Your task to perform on an android device: Open Android settings Image 0: 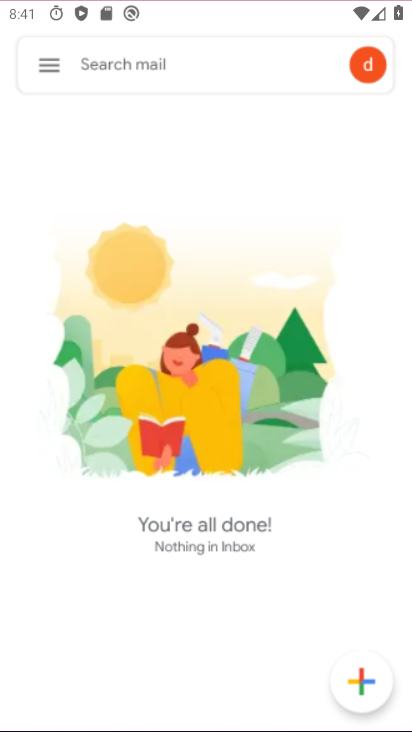
Step 0: drag from (281, 452) to (224, 55)
Your task to perform on an android device: Open Android settings Image 1: 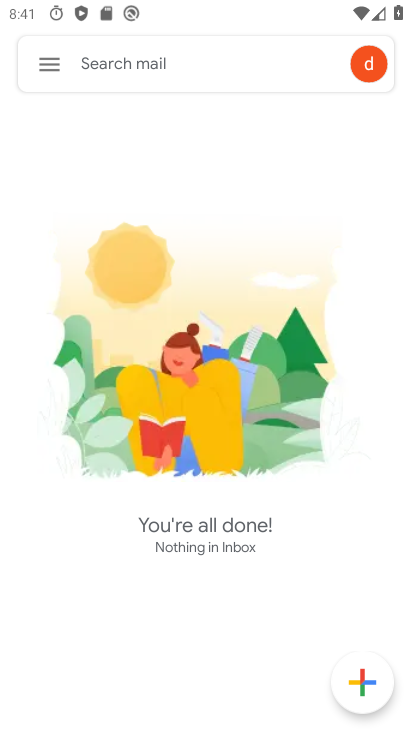
Step 1: press back button
Your task to perform on an android device: Open Android settings Image 2: 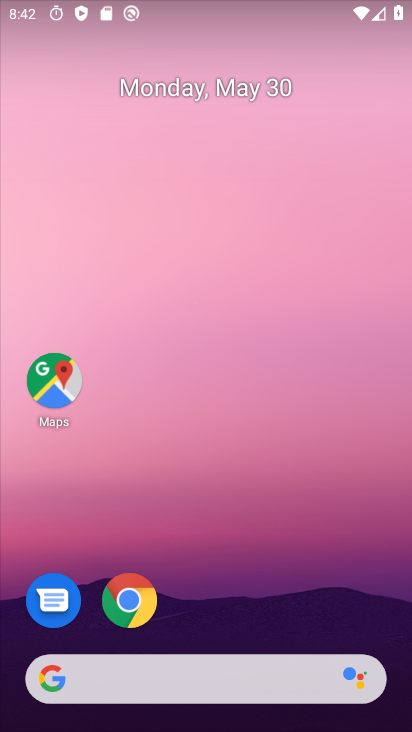
Step 2: drag from (294, 637) to (235, 88)
Your task to perform on an android device: Open Android settings Image 3: 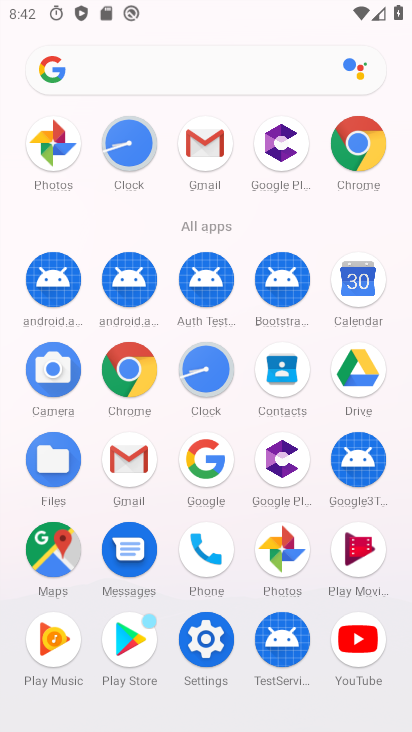
Step 3: click (198, 636)
Your task to perform on an android device: Open Android settings Image 4: 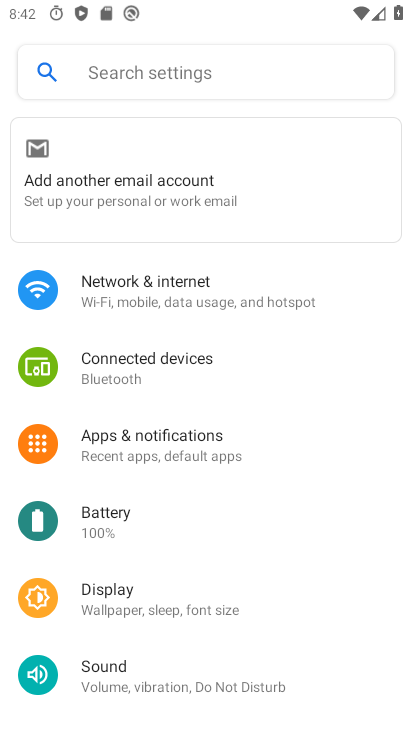
Step 4: task complete